Your task to perform on an android device: open app "McDonald's" (install if not already installed) Image 0: 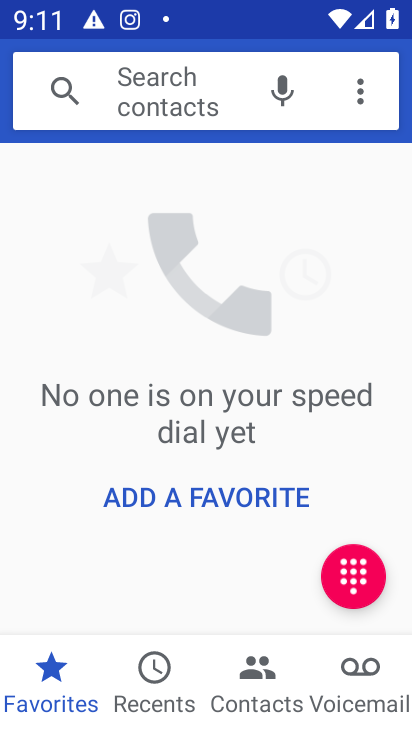
Step 0: press home button
Your task to perform on an android device: open app "McDonald's" (install if not already installed) Image 1: 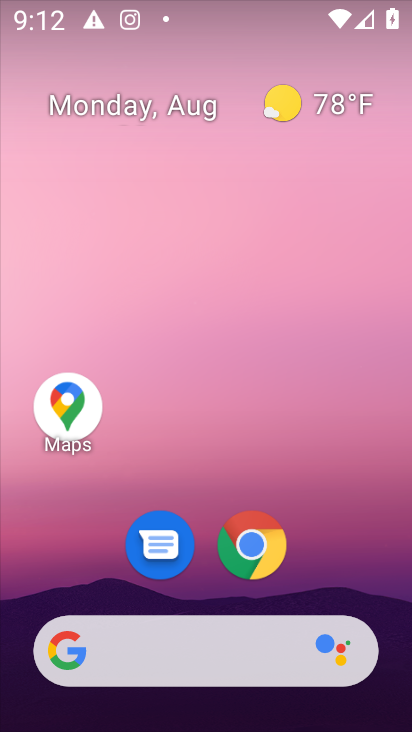
Step 1: drag from (361, 588) to (362, 159)
Your task to perform on an android device: open app "McDonald's" (install if not already installed) Image 2: 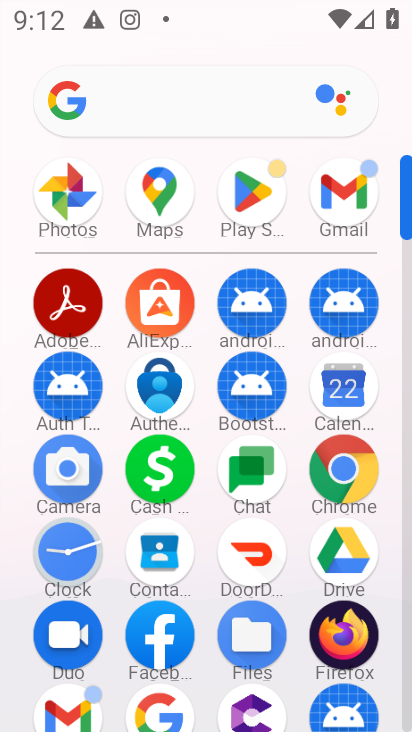
Step 2: click (248, 196)
Your task to perform on an android device: open app "McDonald's" (install if not already installed) Image 3: 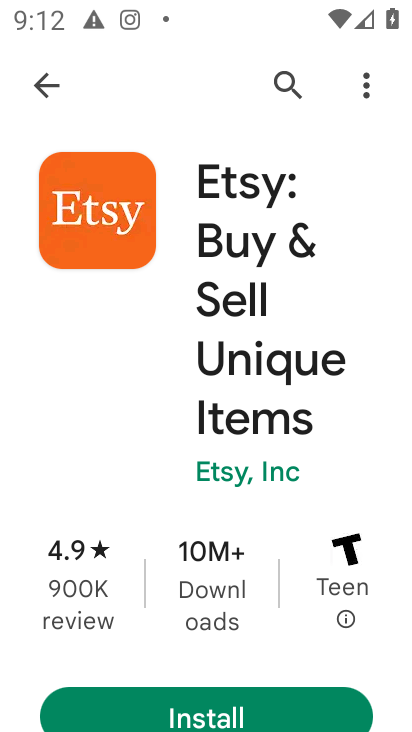
Step 3: press back button
Your task to perform on an android device: open app "McDonald's" (install if not already installed) Image 4: 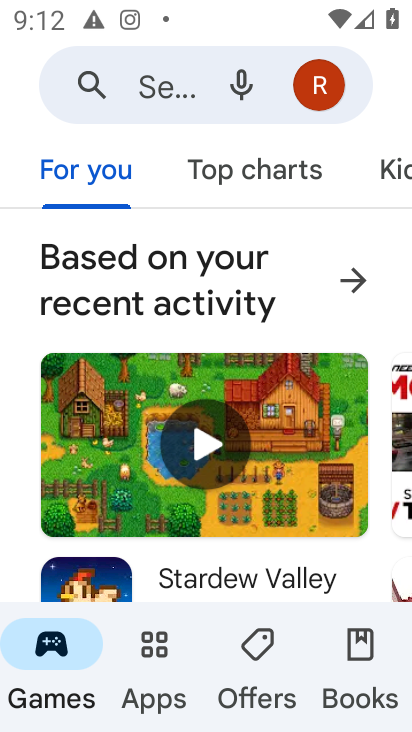
Step 4: click (166, 95)
Your task to perform on an android device: open app "McDonald's" (install if not already installed) Image 5: 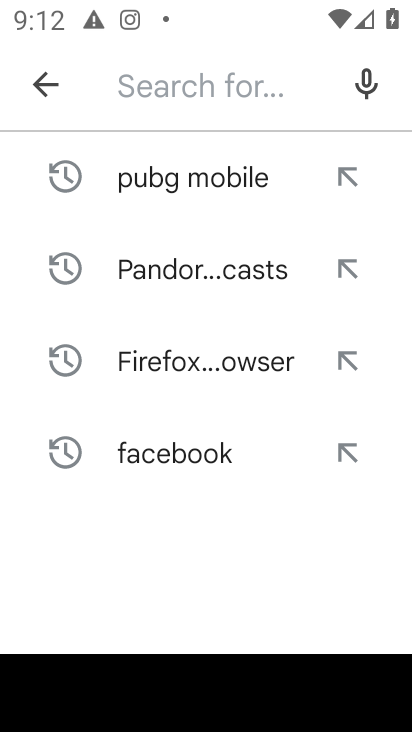
Step 5: press enter
Your task to perform on an android device: open app "McDonald's" (install if not already installed) Image 6: 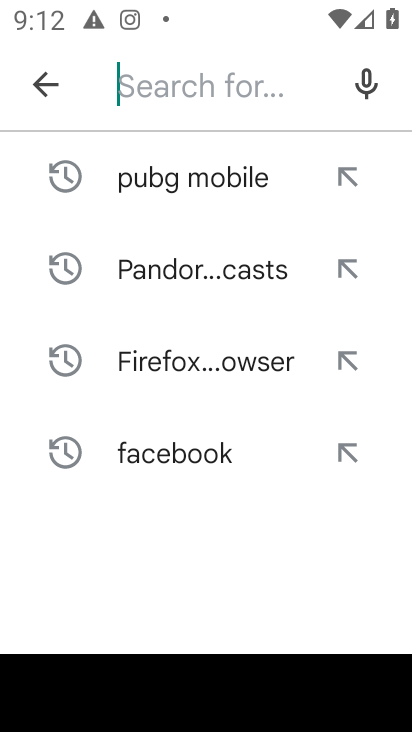
Step 6: type "mcdonalds"
Your task to perform on an android device: open app "McDonald's" (install if not already installed) Image 7: 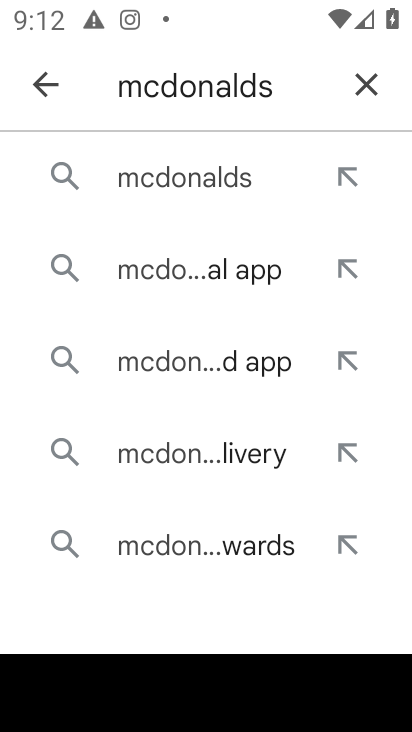
Step 7: click (231, 275)
Your task to perform on an android device: open app "McDonald's" (install if not already installed) Image 8: 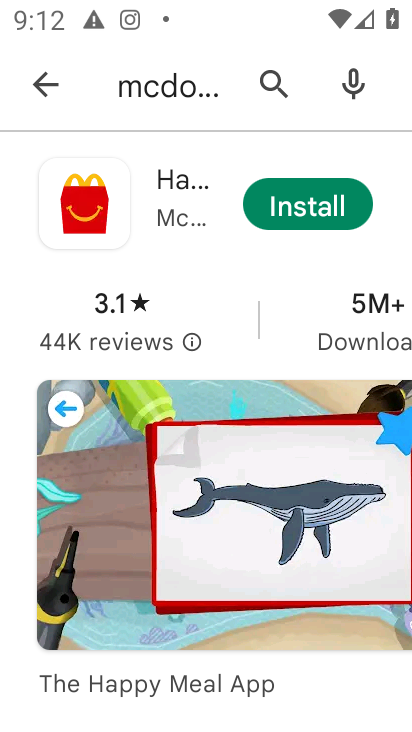
Step 8: click (326, 208)
Your task to perform on an android device: open app "McDonald's" (install if not already installed) Image 9: 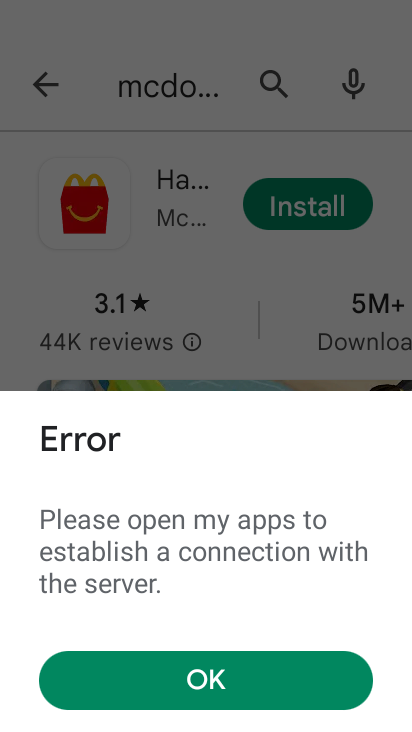
Step 9: click (299, 674)
Your task to perform on an android device: open app "McDonald's" (install if not already installed) Image 10: 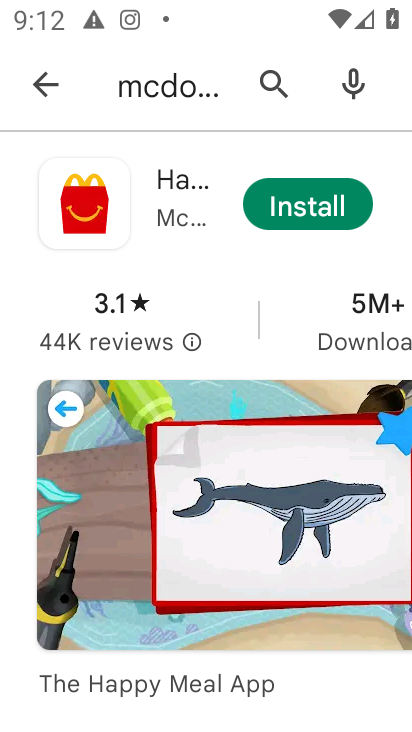
Step 10: click (326, 216)
Your task to perform on an android device: open app "McDonald's" (install if not already installed) Image 11: 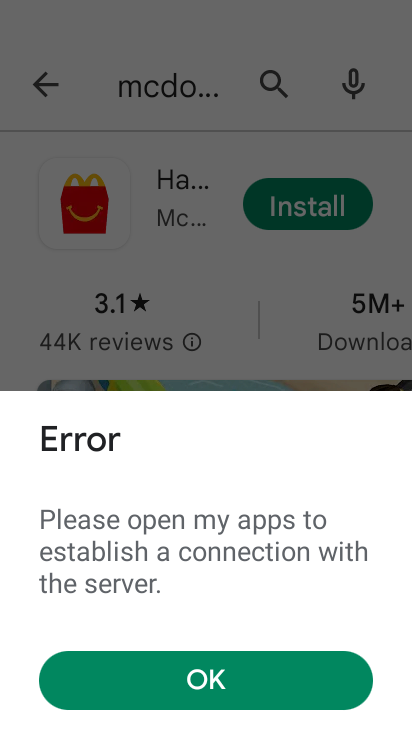
Step 11: task complete